Your task to perform on an android device: Go to settings Image 0: 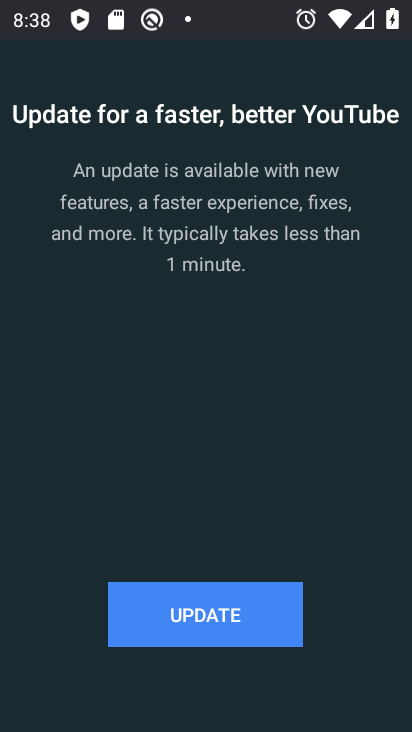
Step 0: press home button
Your task to perform on an android device: Go to settings Image 1: 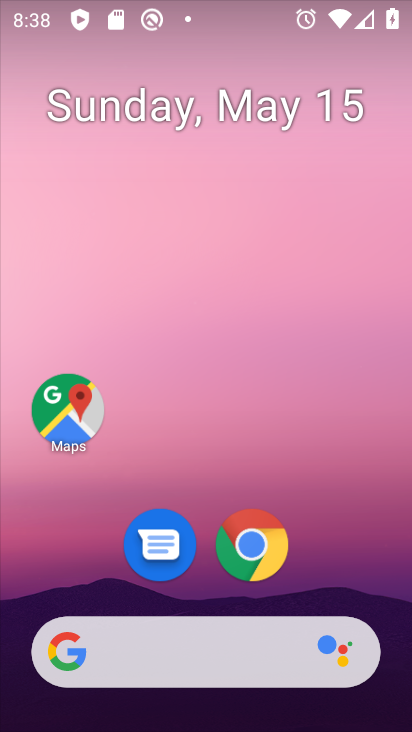
Step 1: drag from (370, 545) to (356, 58)
Your task to perform on an android device: Go to settings Image 2: 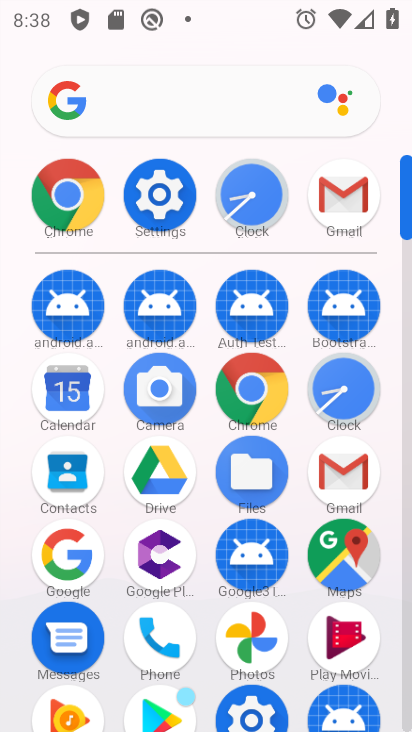
Step 2: click (171, 183)
Your task to perform on an android device: Go to settings Image 3: 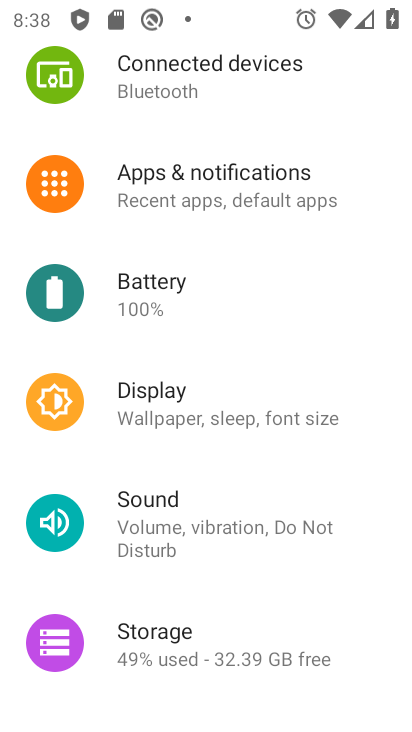
Step 3: task complete